Your task to perform on an android device: Go to eBay Image 0: 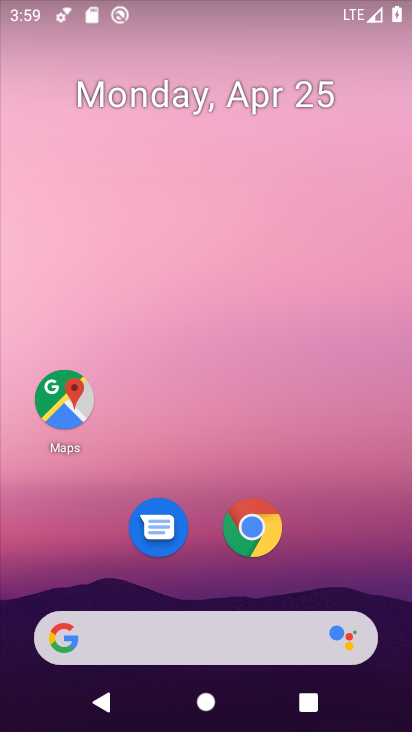
Step 0: click (250, 532)
Your task to perform on an android device: Go to eBay Image 1: 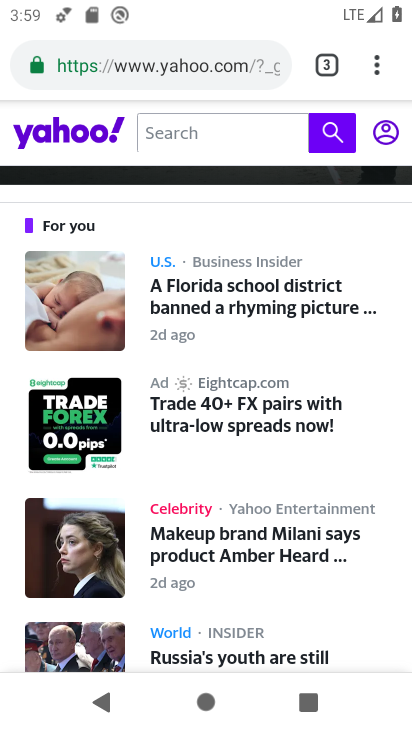
Step 1: click (149, 67)
Your task to perform on an android device: Go to eBay Image 2: 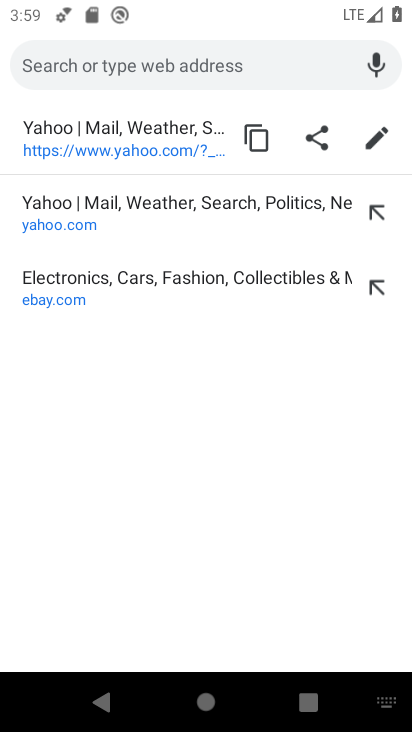
Step 2: type "ebay"
Your task to perform on an android device: Go to eBay Image 3: 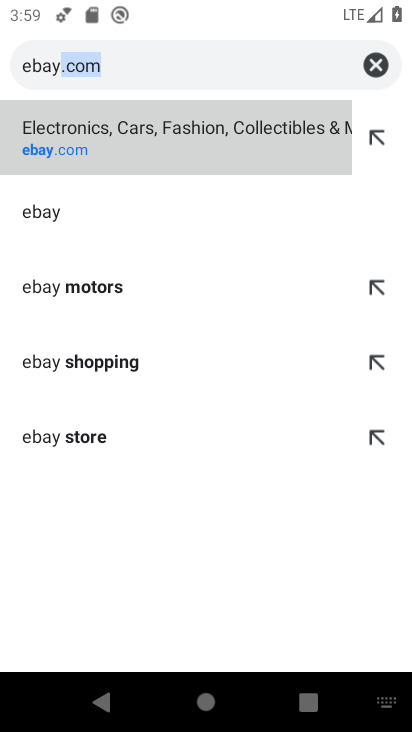
Step 3: click (70, 127)
Your task to perform on an android device: Go to eBay Image 4: 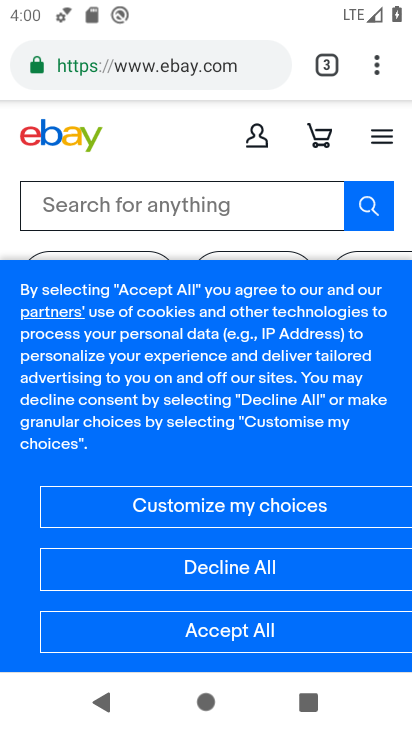
Step 4: task complete